Your task to perform on an android device: Is it going to rain this weekend? Image 0: 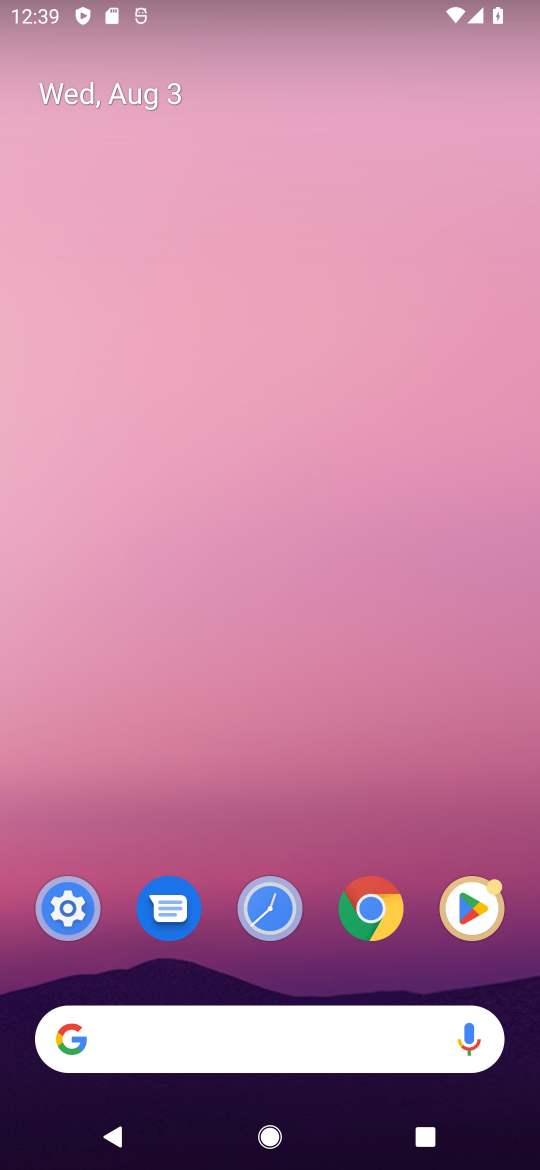
Step 0: click (232, 1034)
Your task to perform on an android device: Is it going to rain this weekend? Image 1: 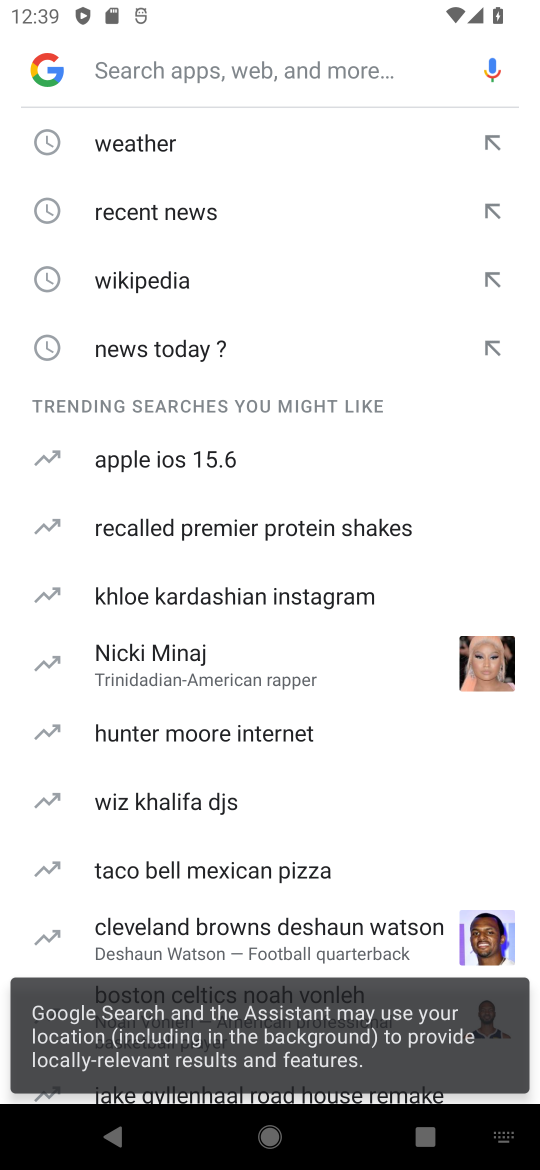
Step 1: click (134, 152)
Your task to perform on an android device: Is it going to rain this weekend? Image 2: 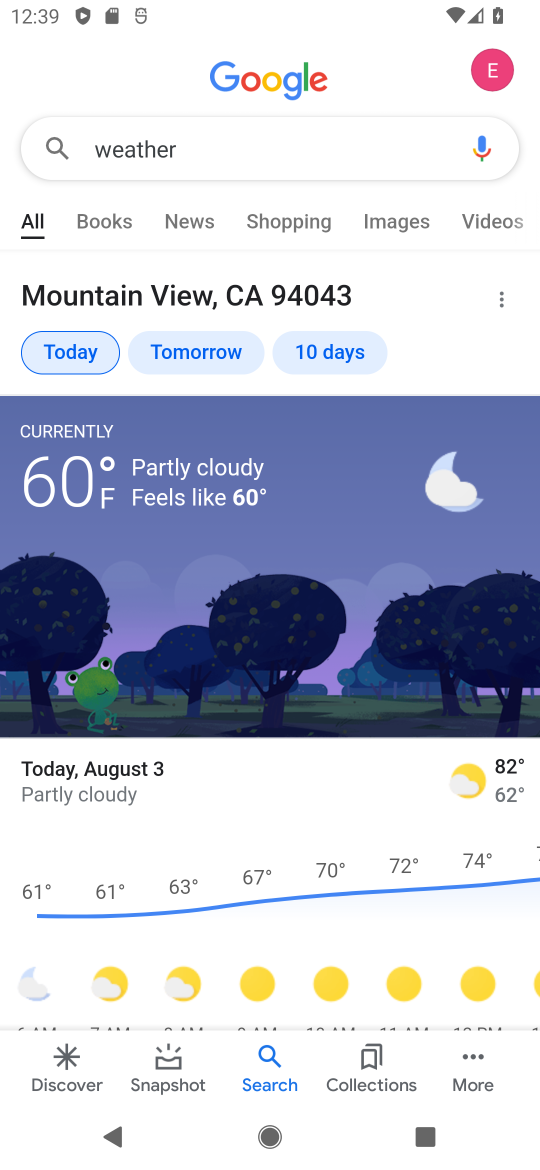
Step 2: click (312, 345)
Your task to perform on an android device: Is it going to rain this weekend? Image 3: 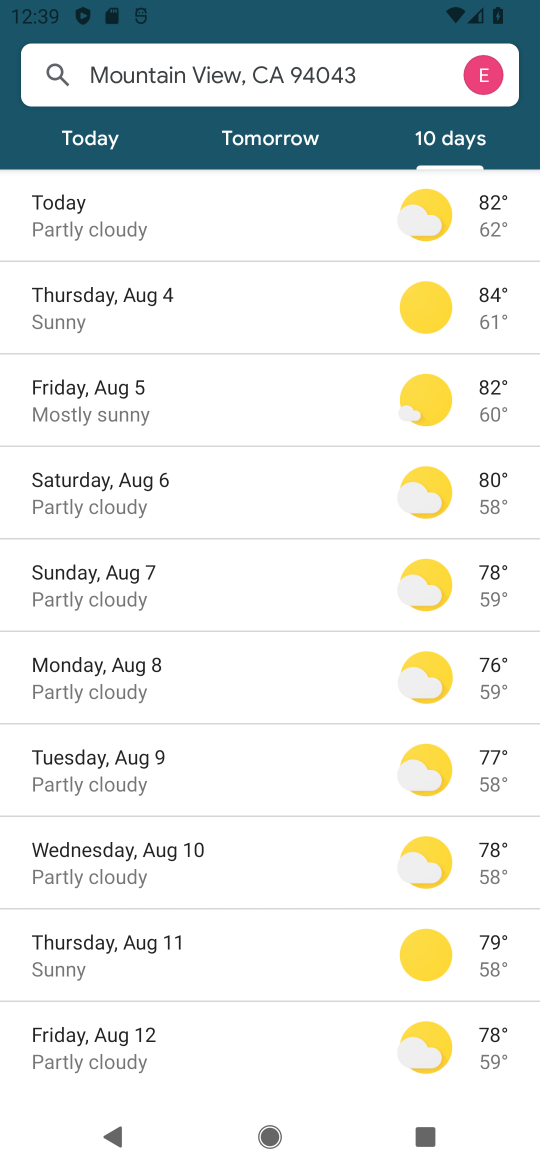
Step 3: task complete